Your task to perform on an android device: Go to accessibility settings Image 0: 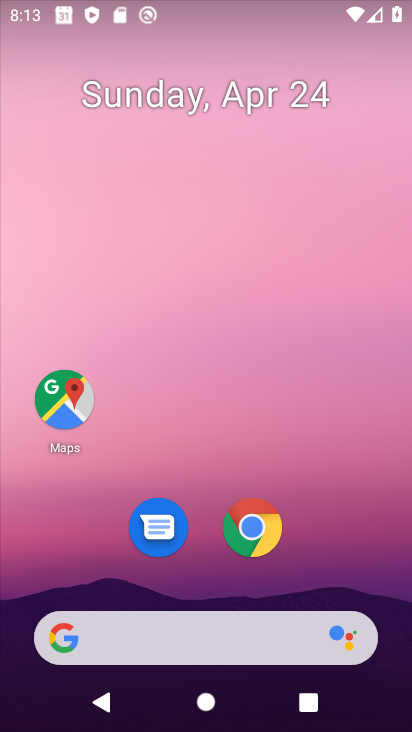
Step 0: drag from (379, 587) to (347, 11)
Your task to perform on an android device: Go to accessibility settings Image 1: 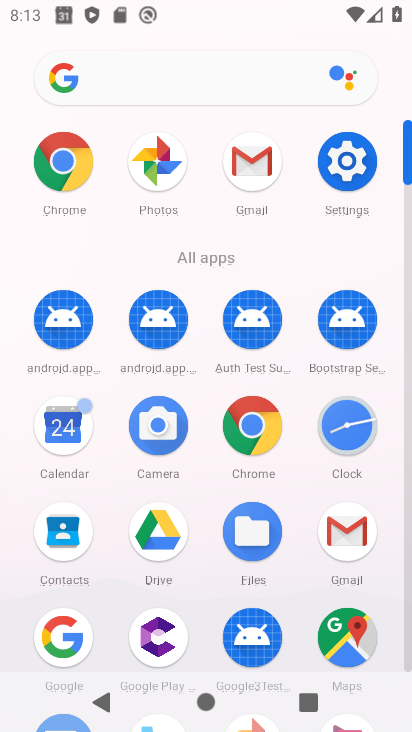
Step 1: click (348, 170)
Your task to perform on an android device: Go to accessibility settings Image 2: 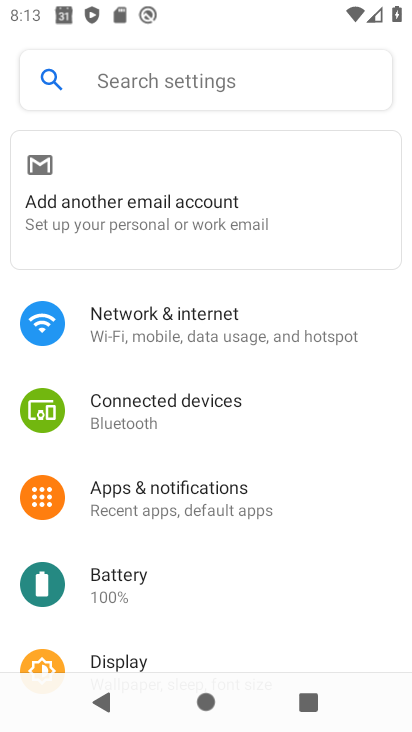
Step 2: drag from (345, 594) to (318, 1)
Your task to perform on an android device: Go to accessibility settings Image 3: 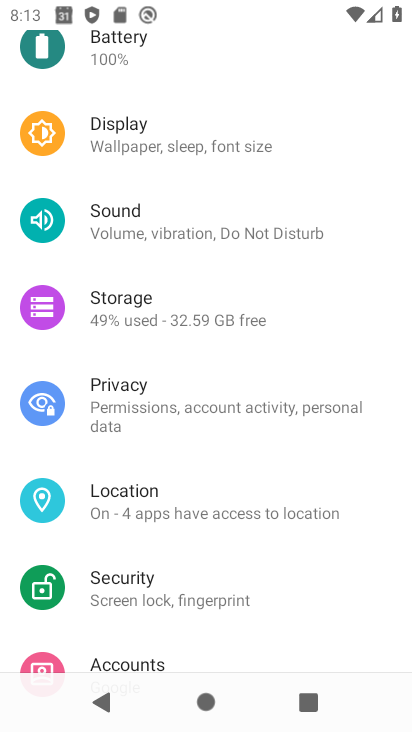
Step 3: drag from (364, 526) to (341, 10)
Your task to perform on an android device: Go to accessibility settings Image 4: 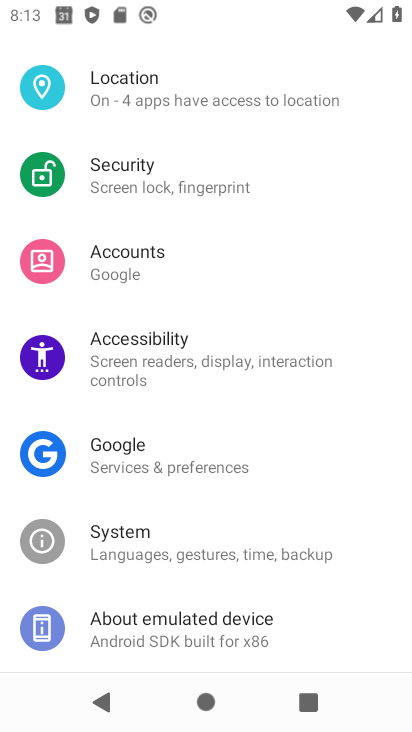
Step 4: click (116, 355)
Your task to perform on an android device: Go to accessibility settings Image 5: 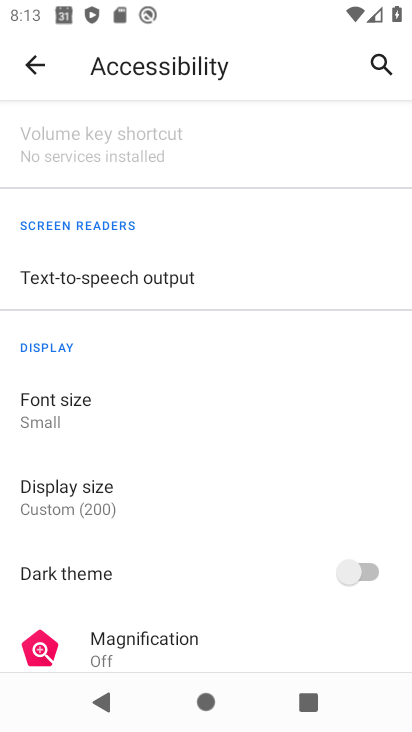
Step 5: task complete